Your task to perform on an android device: check google app version Image 0: 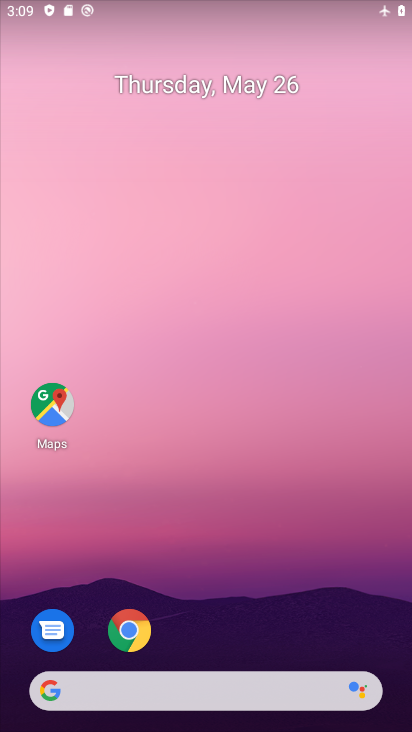
Step 0: drag from (233, 630) to (207, 0)
Your task to perform on an android device: check google app version Image 1: 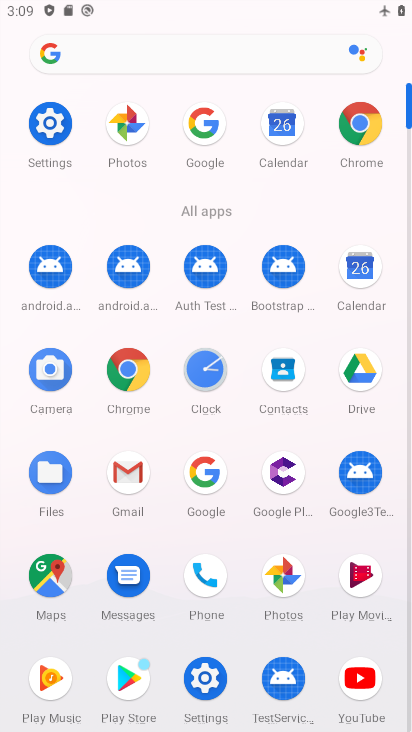
Step 1: click (202, 122)
Your task to perform on an android device: check google app version Image 2: 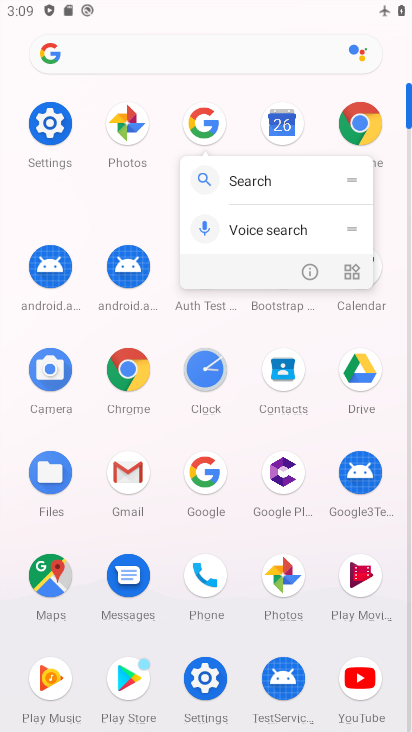
Step 2: click (313, 272)
Your task to perform on an android device: check google app version Image 3: 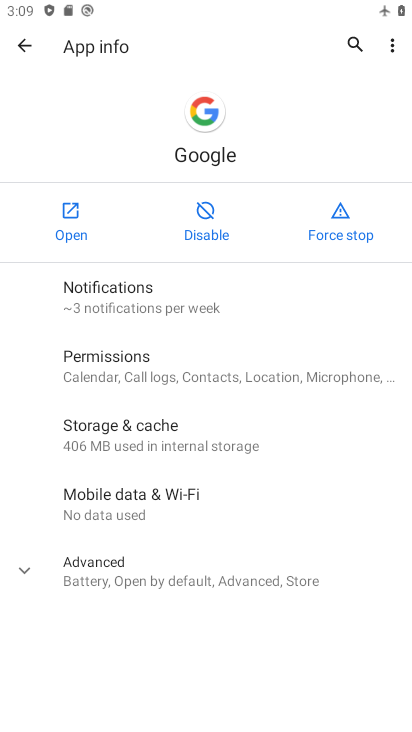
Step 3: click (143, 570)
Your task to perform on an android device: check google app version Image 4: 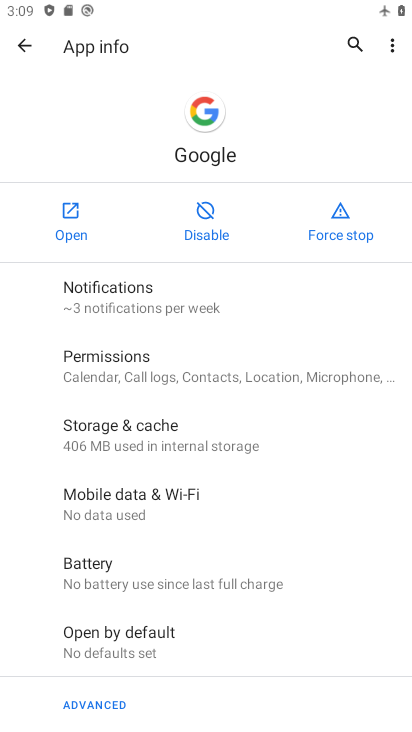
Step 4: drag from (166, 552) to (221, 460)
Your task to perform on an android device: check google app version Image 5: 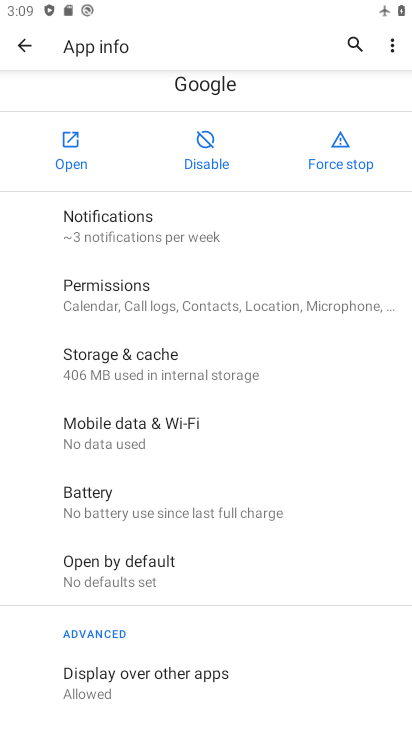
Step 5: drag from (183, 581) to (231, 503)
Your task to perform on an android device: check google app version Image 6: 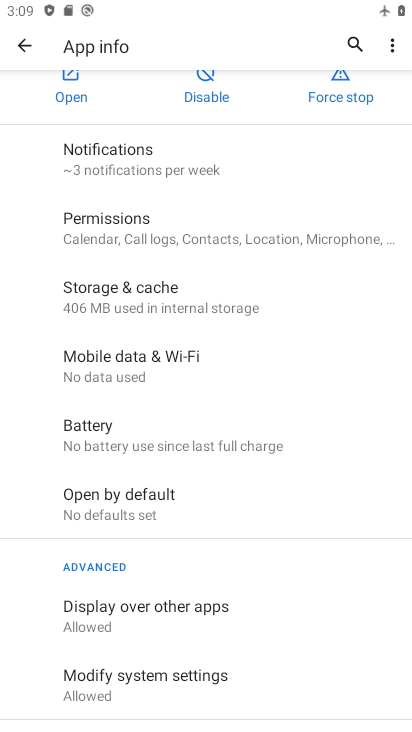
Step 6: drag from (180, 563) to (230, 482)
Your task to perform on an android device: check google app version Image 7: 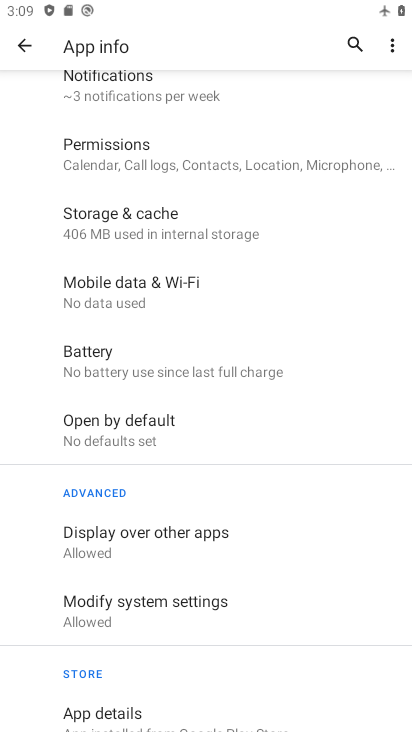
Step 7: drag from (169, 560) to (232, 486)
Your task to perform on an android device: check google app version Image 8: 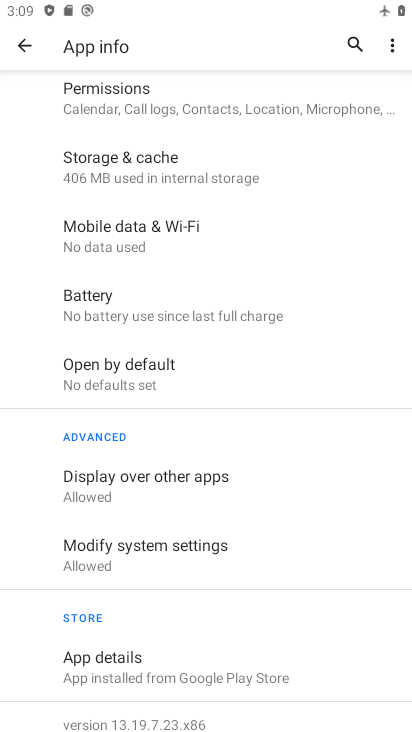
Step 8: drag from (155, 609) to (195, 529)
Your task to perform on an android device: check google app version Image 9: 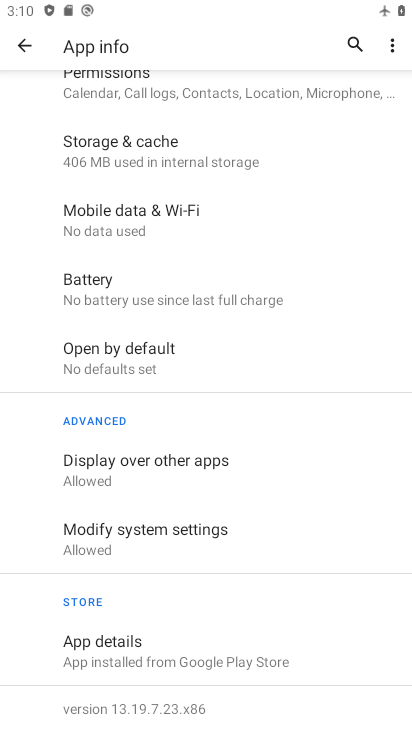
Step 9: drag from (216, 709) to (68, 696)
Your task to perform on an android device: check google app version Image 10: 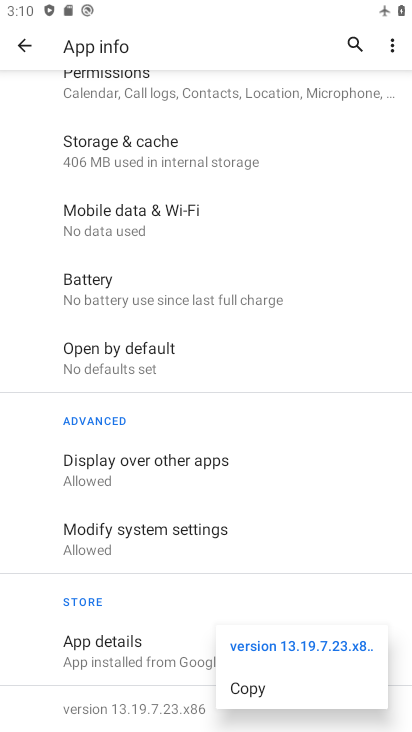
Step 10: click (290, 646)
Your task to perform on an android device: check google app version Image 11: 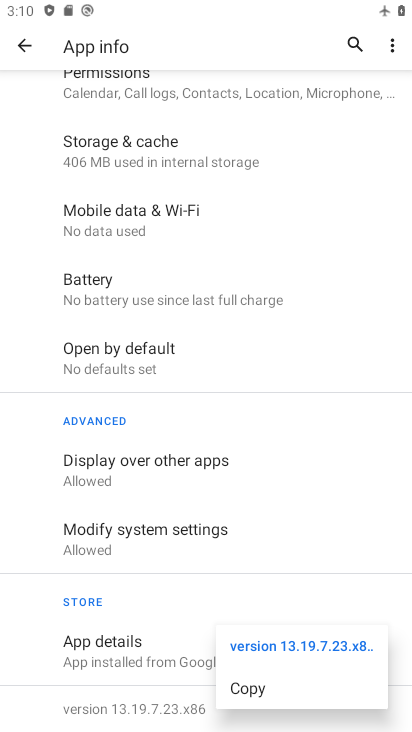
Step 11: click (146, 709)
Your task to perform on an android device: check google app version Image 12: 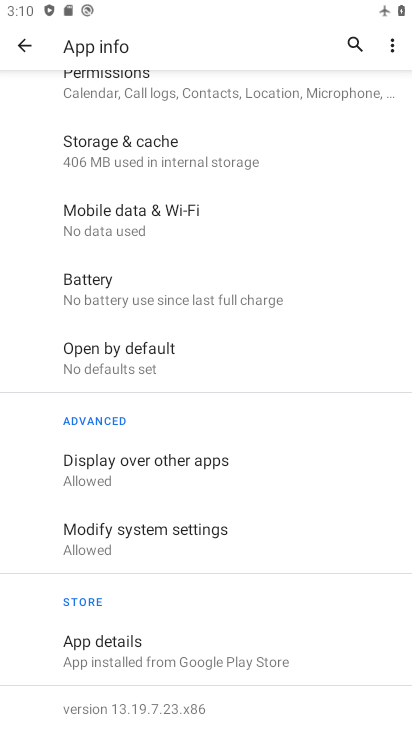
Step 12: task complete